Your task to perform on an android device: Go to Wikipedia Image 0: 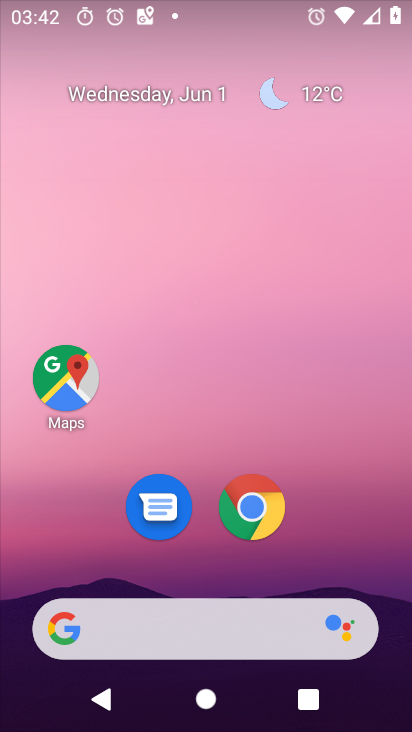
Step 0: click (249, 508)
Your task to perform on an android device: Go to Wikipedia Image 1: 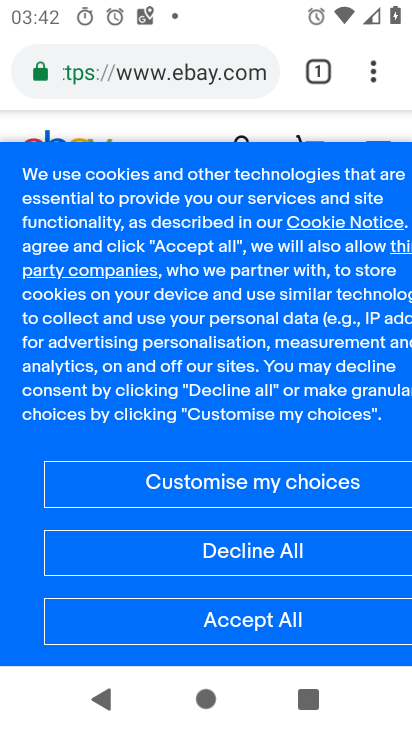
Step 1: click (132, 82)
Your task to perform on an android device: Go to Wikipedia Image 2: 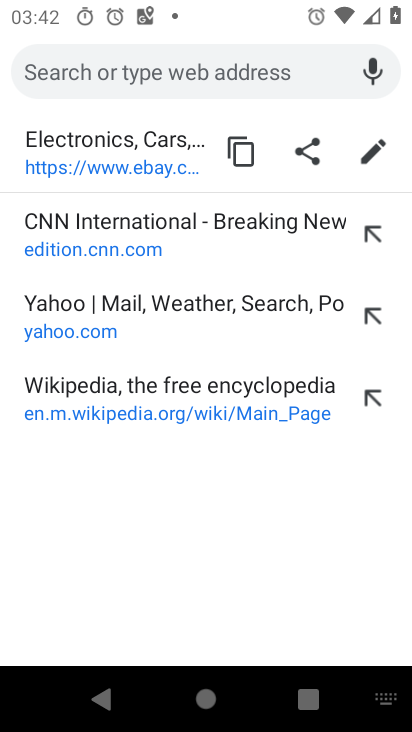
Step 2: click (138, 416)
Your task to perform on an android device: Go to Wikipedia Image 3: 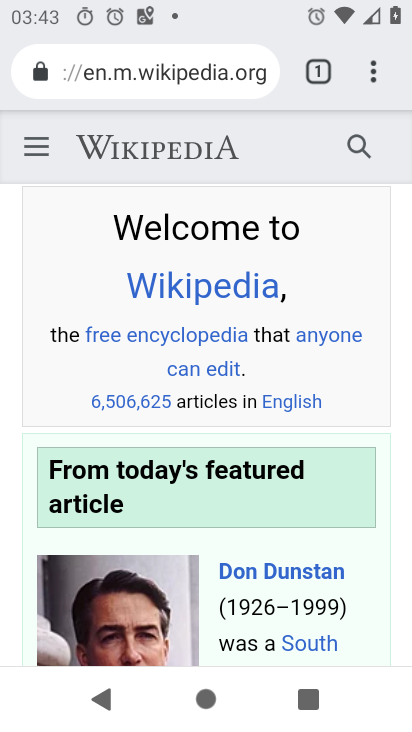
Step 3: task complete